Your task to perform on an android device: change the clock style Image 0: 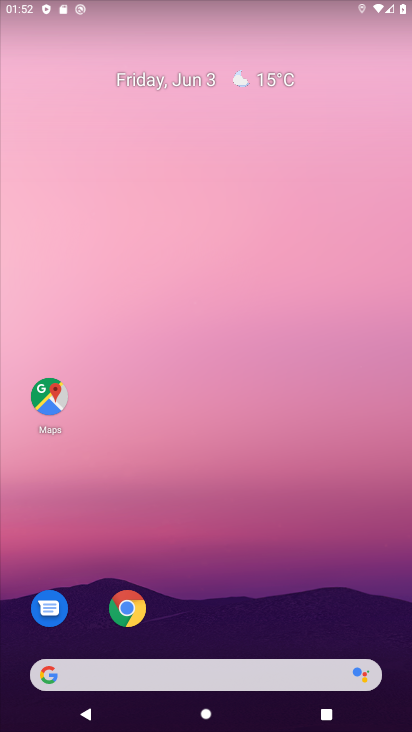
Step 0: drag from (245, 597) to (214, 209)
Your task to perform on an android device: change the clock style Image 1: 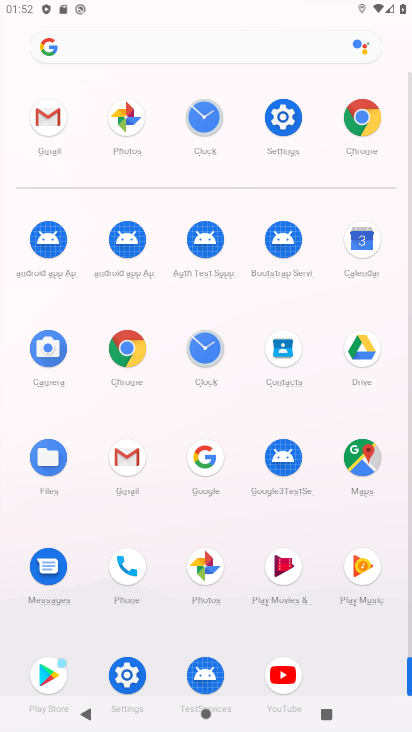
Step 1: click (213, 349)
Your task to perform on an android device: change the clock style Image 2: 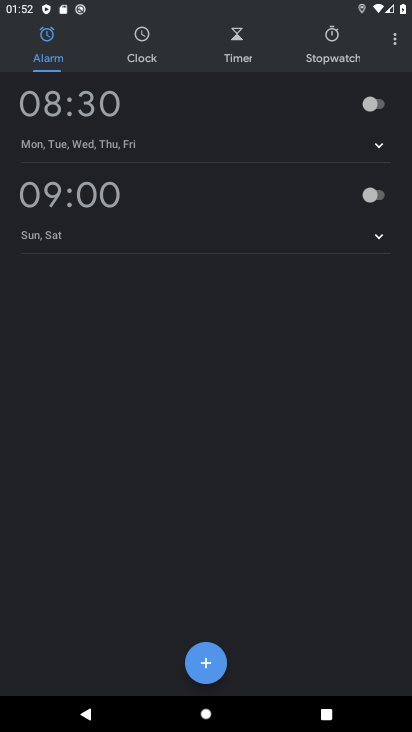
Step 2: drag from (392, 38) to (294, 87)
Your task to perform on an android device: change the clock style Image 3: 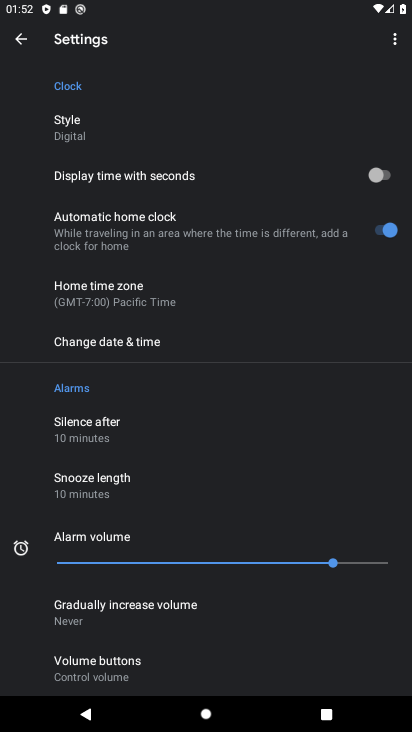
Step 3: click (62, 121)
Your task to perform on an android device: change the clock style Image 4: 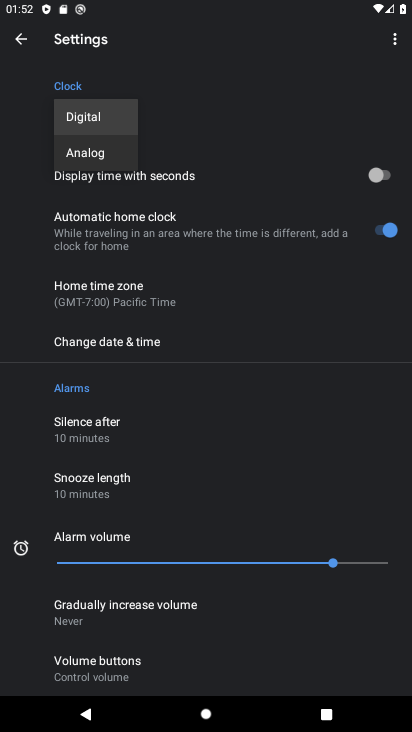
Step 4: click (101, 152)
Your task to perform on an android device: change the clock style Image 5: 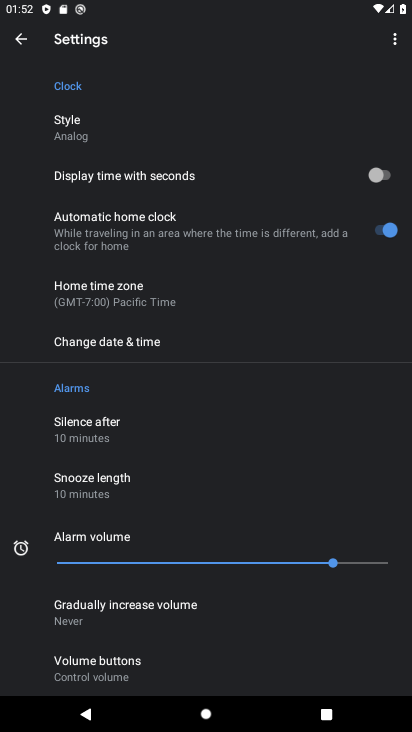
Step 5: task complete